Your task to perform on an android device: turn off picture-in-picture Image 0: 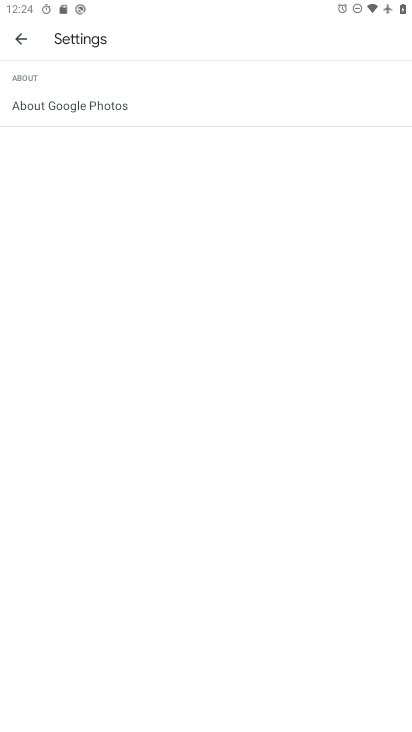
Step 0: press home button
Your task to perform on an android device: turn off picture-in-picture Image 1: 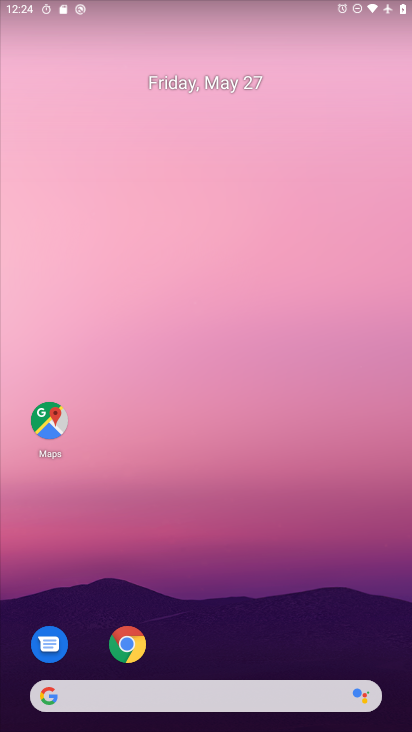
Step 1: click (116, 643)
Your task to perform on an android device: turn off picture-in-picture Image 2: 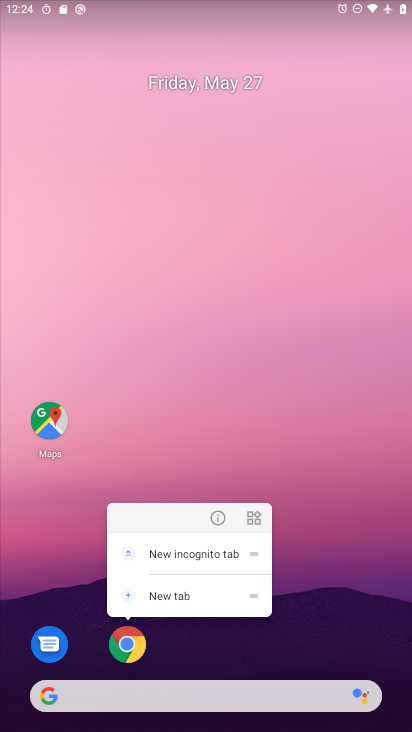
Step 2: click (216, 512)
Your task to perform on an android device: turn off picture-in-picture Image 3: 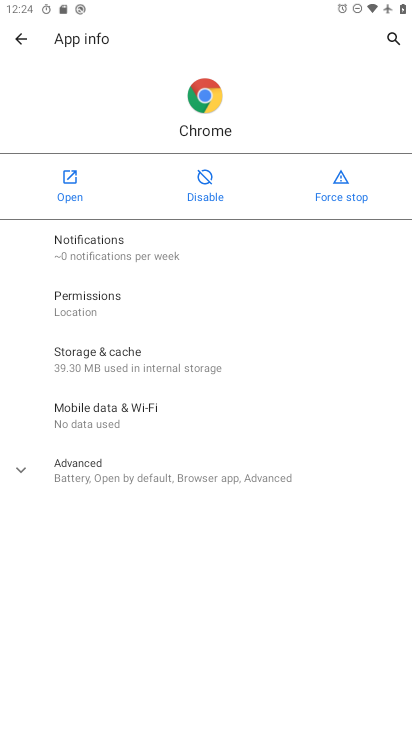
Step 3: click (97, 458)
Your task to perform on an android device: turn off picture-in-picture Image 4: 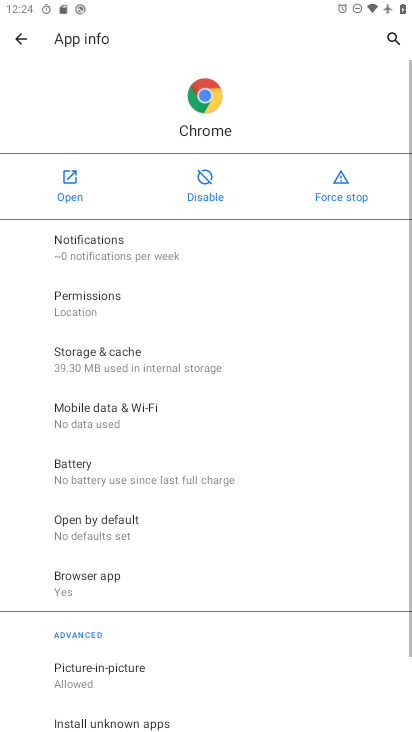
Step 4: drag from (161, 665) to (170, 448)
Your task to perform on an android device: turn off picture-in-picture Image 5: 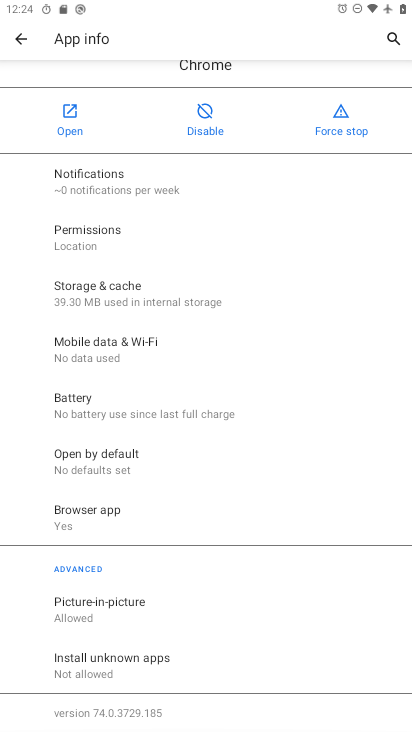
Step 5: click (148, 592)
Your task to perform on an android device: turn off picture-in-picture Image 6: 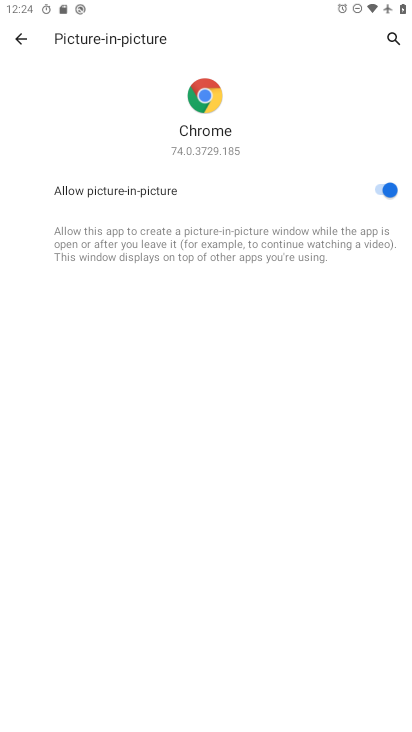
Step 6: click (376, 181)
Your task to perform on an android device: turn off picture-in-picture Image 7: 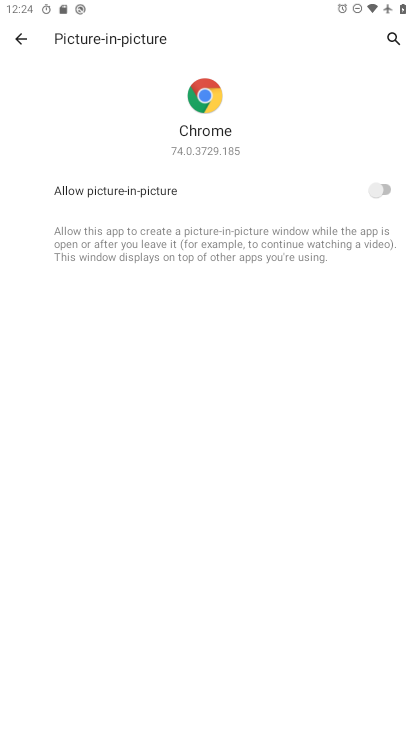
Step 7: task complete